Your task to perform on an android device: Is it going to rain tomorrow? Image 0: 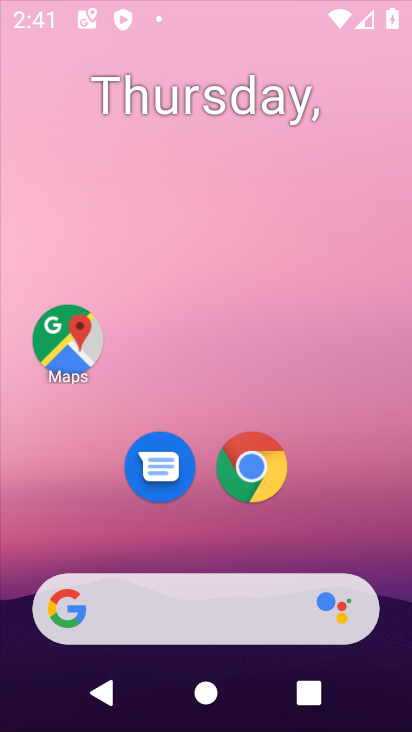
Step 0: click (222, 91)
Your task to perform on an android device: Is it going to rain tomorrow? Image 1: 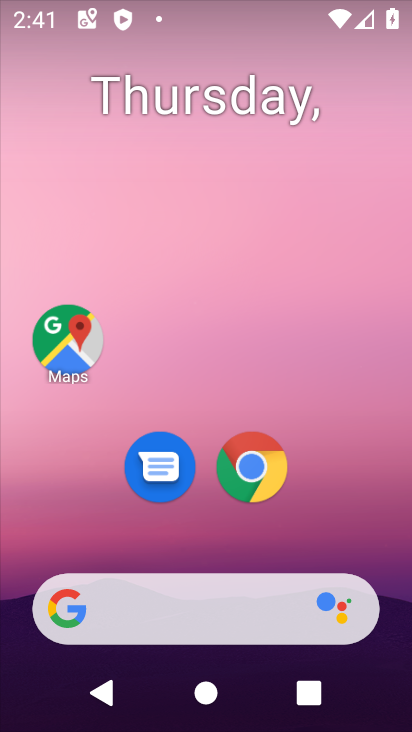
Step 1: drag from (202, 560) to (242, 192)
Your task to perform on an android device: Is it going to rain tomorrow? Image 2: 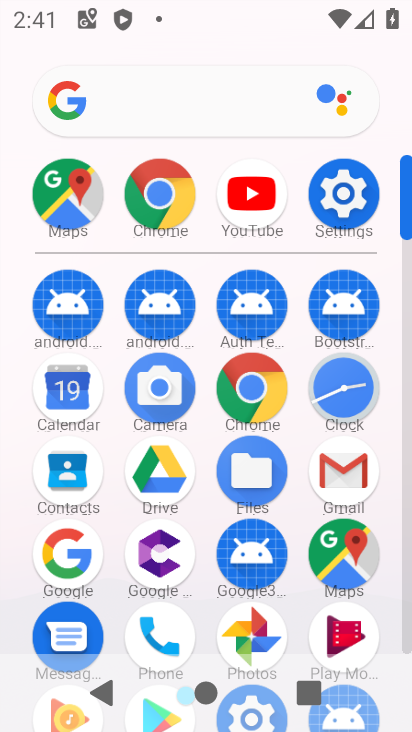
Step 2: type " rain tomorrow?"
Your task to perform on an android device: Is it going to rain tomorrow? Image 3: 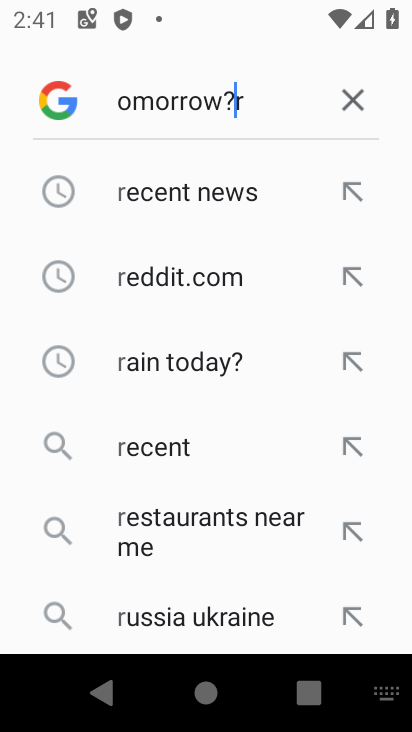
Step 3: type ""
Your task to perform on an android device: Is it going to rain tomorrow? Image 4: 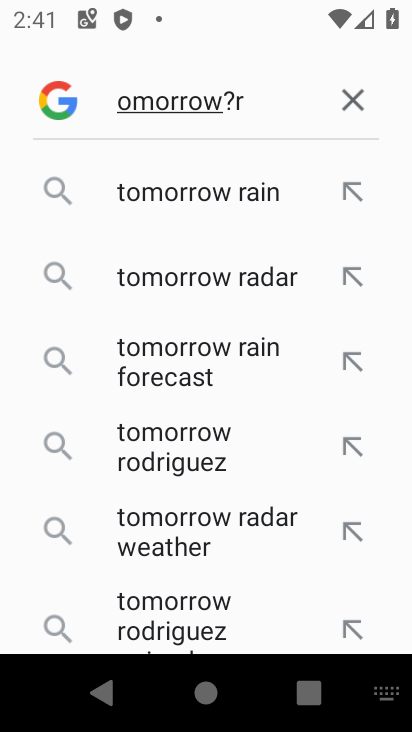
Step 4: click (180, 187)
Your task to perform on an android device: Is it going to rain tomorrow? Image 5: 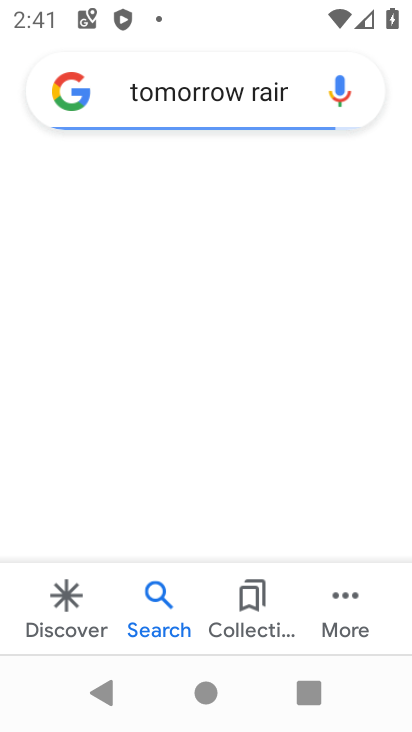
Step 5: task complete